Your task to perform on an android device: uninstall "DoorDash - Dasher" Image 0: 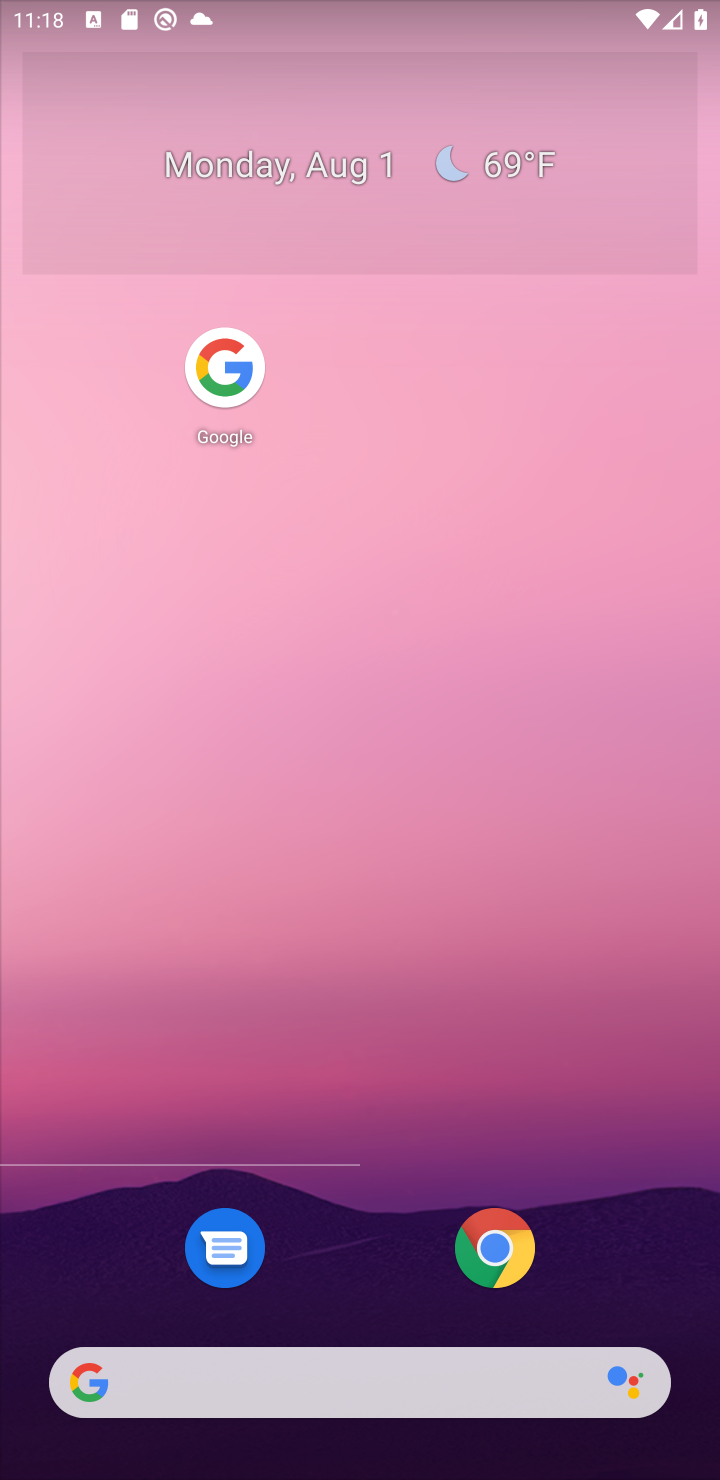
Step 0: drag from (623, 1250) to (609, 379)
Your task to perform on an android device: uninstall "DoorDash - Dasher" Image 1: 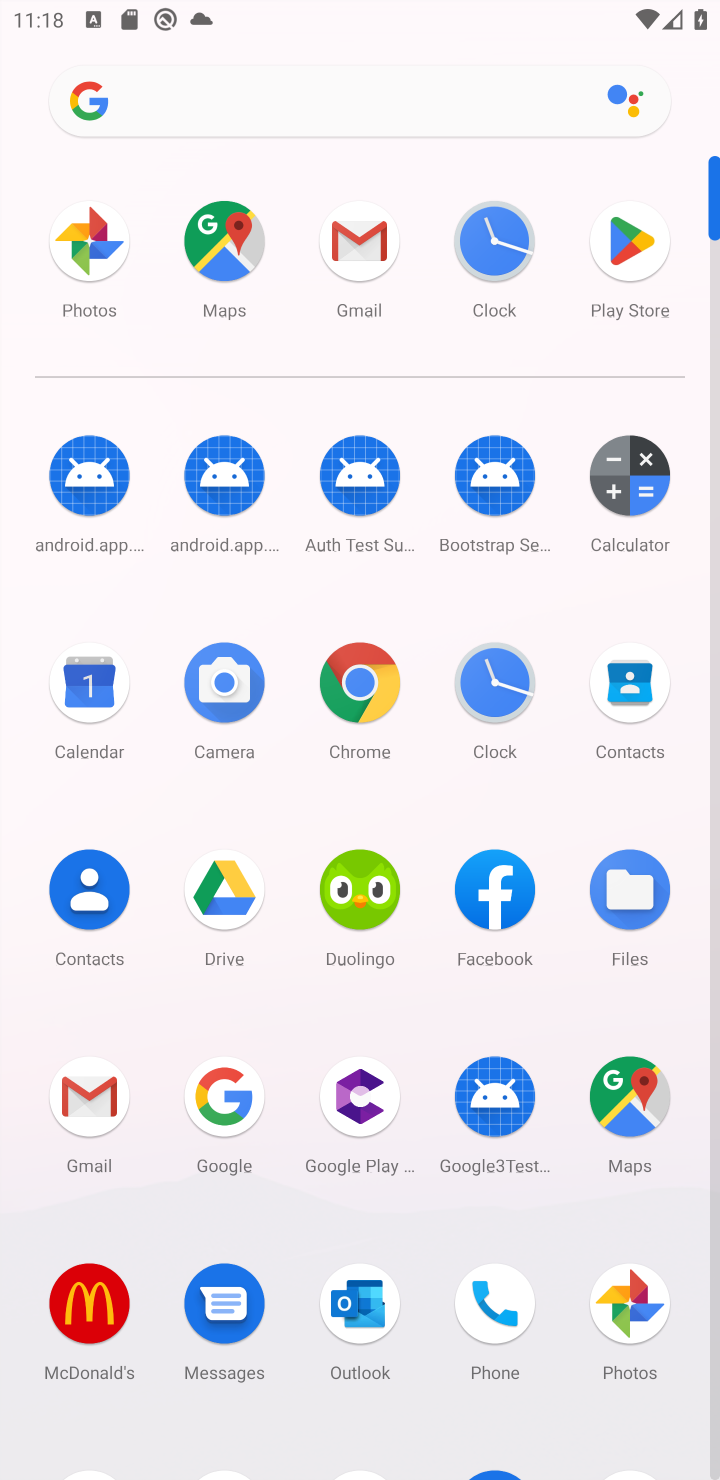
Step 1: drag from (293, 1195) to (366, 410)
Your task to perform on an android device: uninstall "DoorDash - Dasher" Image 2: 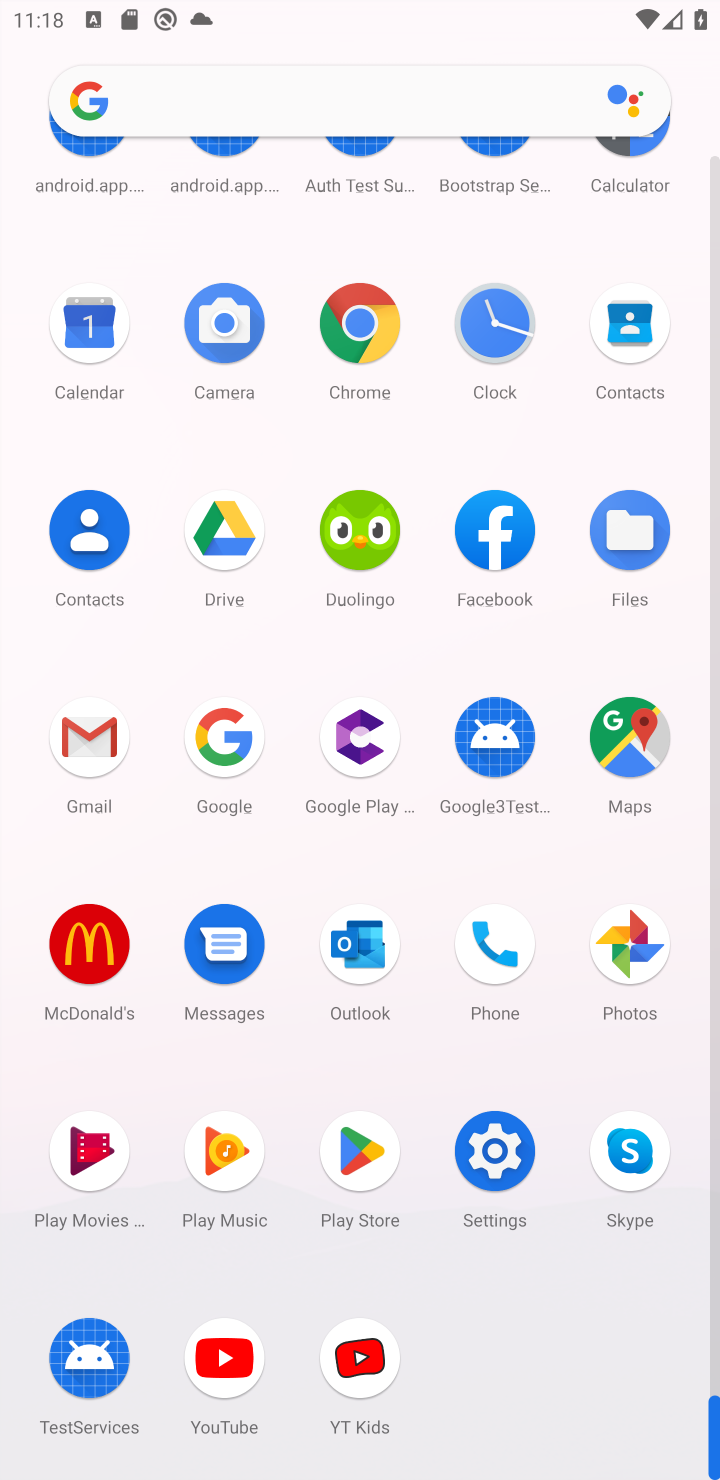
Step 2: click (373, 1143)
Your task to perform on an android device: uninstall "DoorDash - Dasher" Image 3: 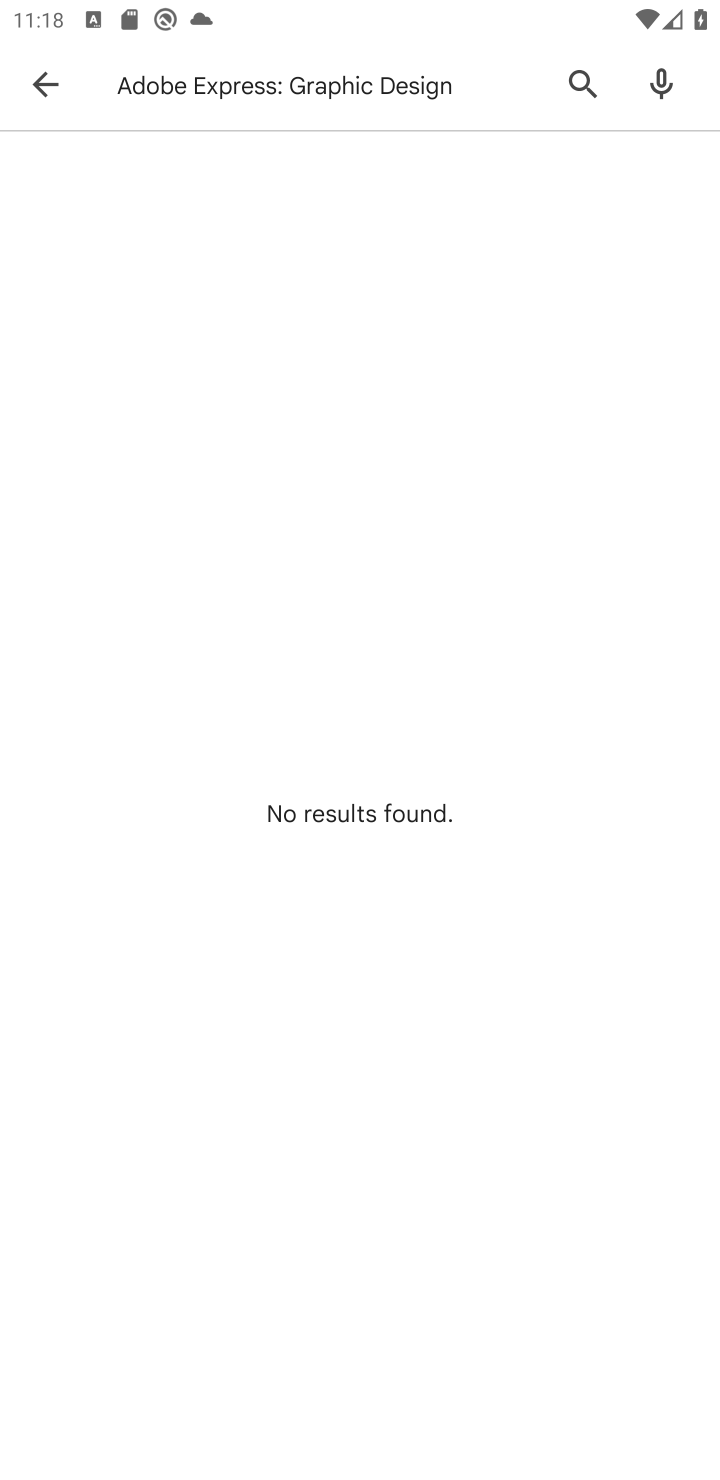
Step 3: click (311, 77)
Your task to perform on an android device: uninstall "DoorDash - Dasher" Image 4: 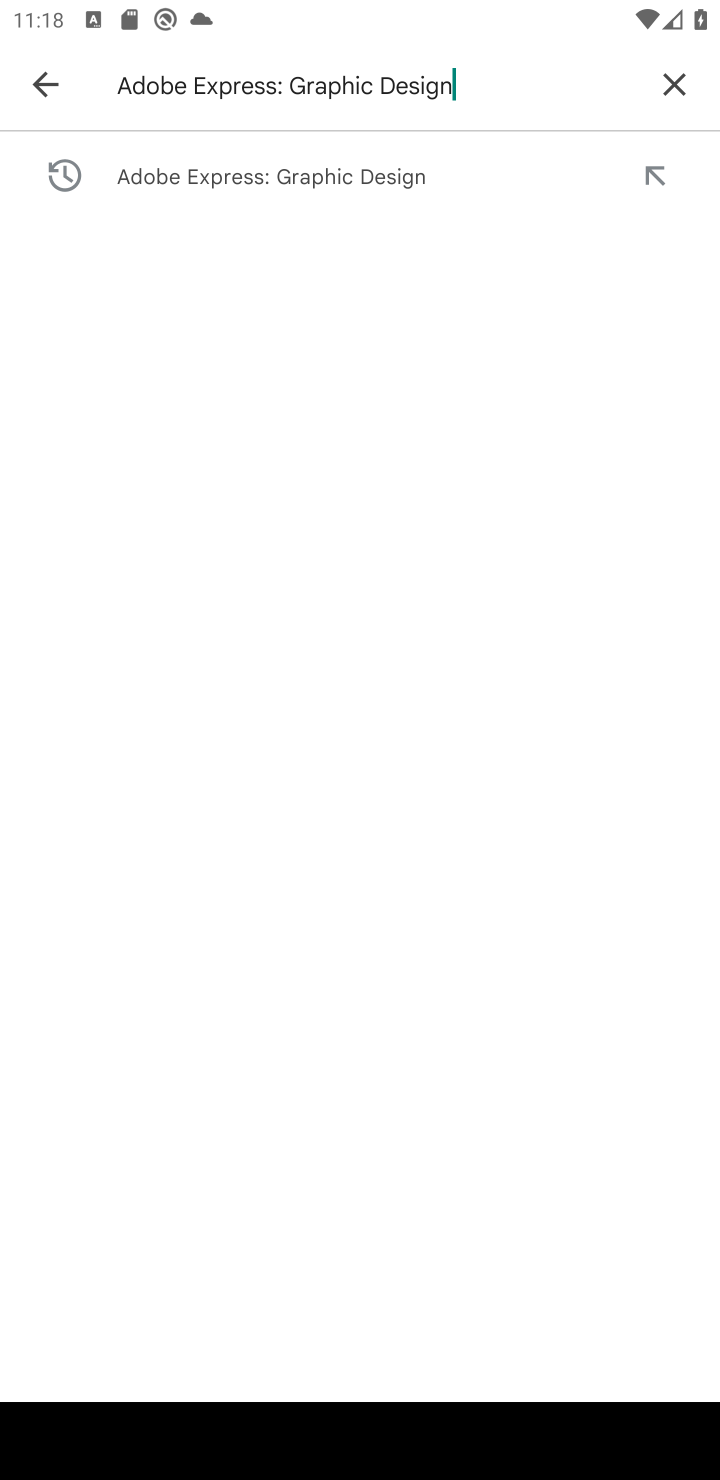
Step 4: click (676, 84)
Your task to perform on an android device: uninstall "DoorDash - Dasher" Image 5: 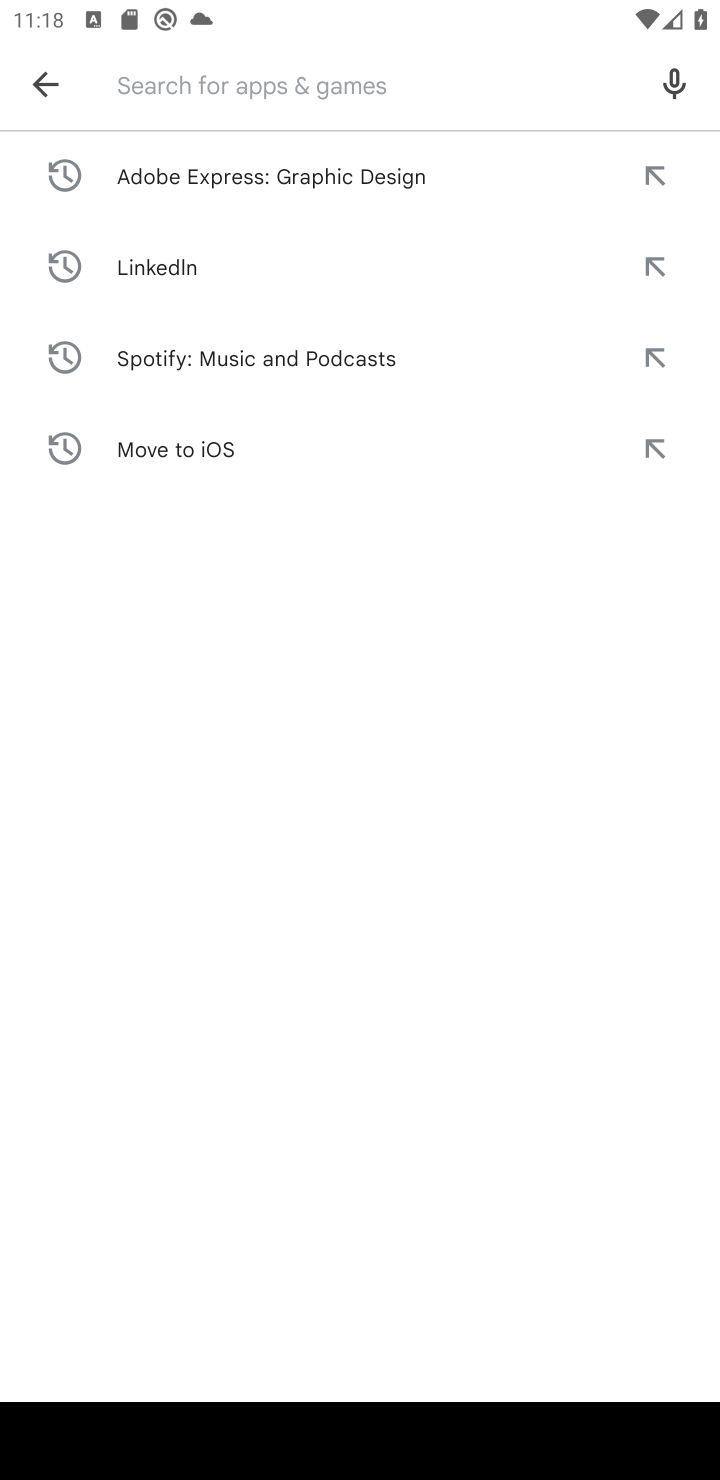
Step 5: type "DoorDash - Dasher"
Your task to perform on an android device: uninstall "DoorDash - Dasher" Image 6: 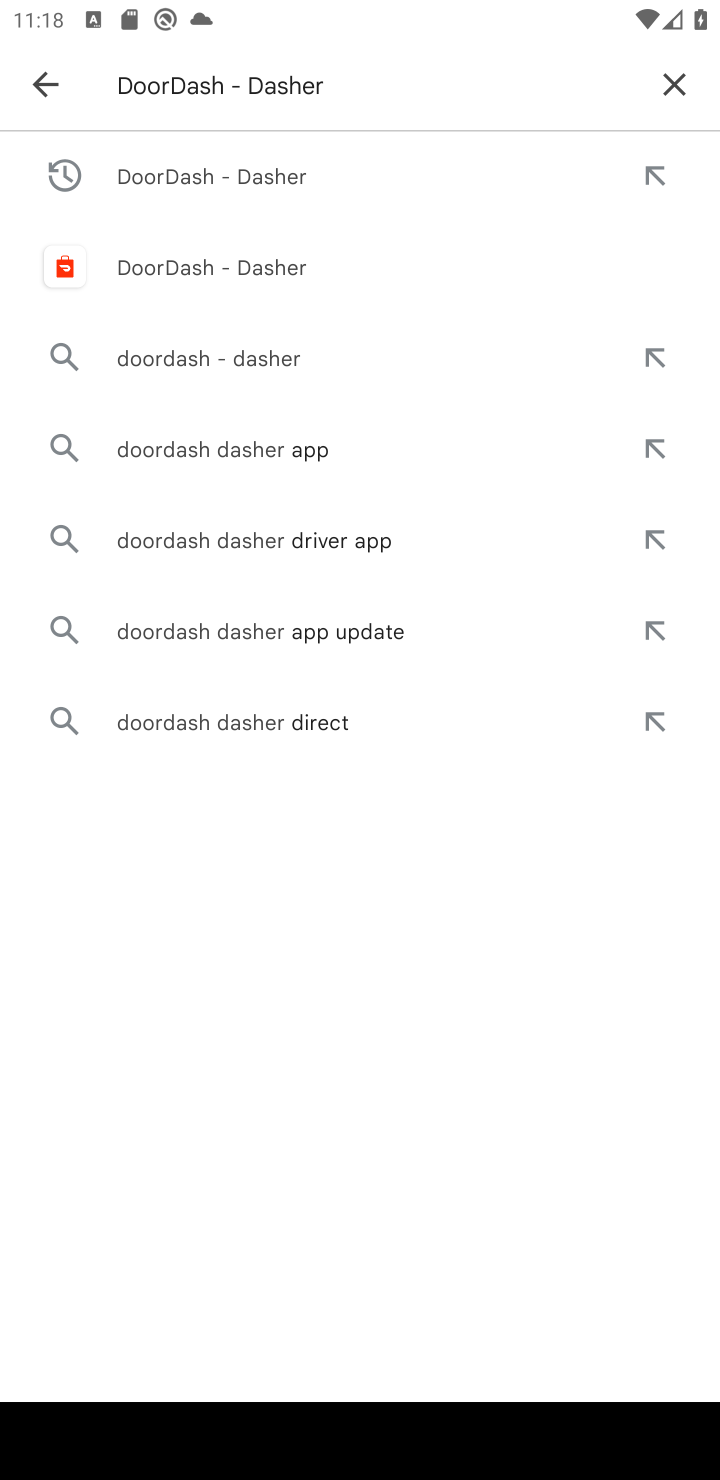
Step 6: press enter
Your task to perform on an android device: uninstall "DoorDash - Dasher" Image 7: 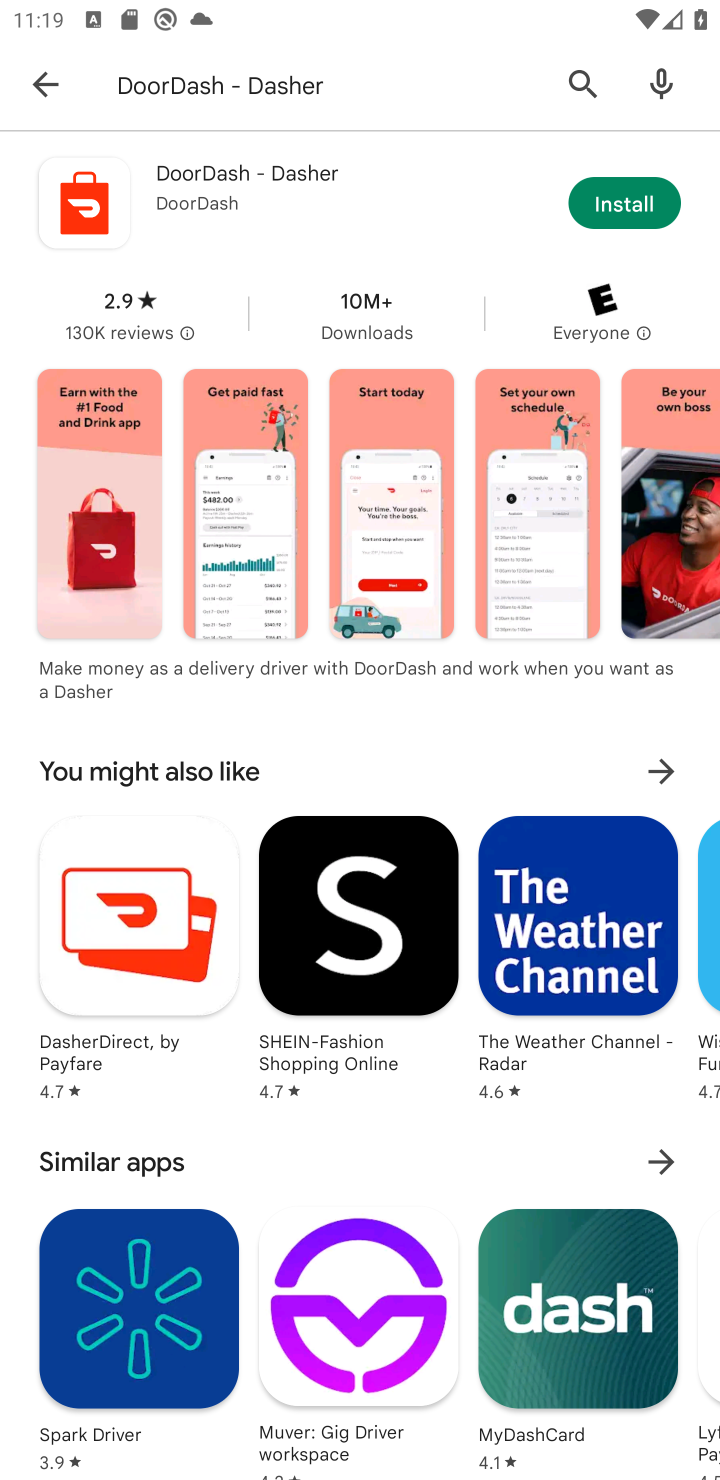
Step 7: click (440, 177)
Your task to perform on an android device: uninstall "DoorDash - Dasher" Image 8: 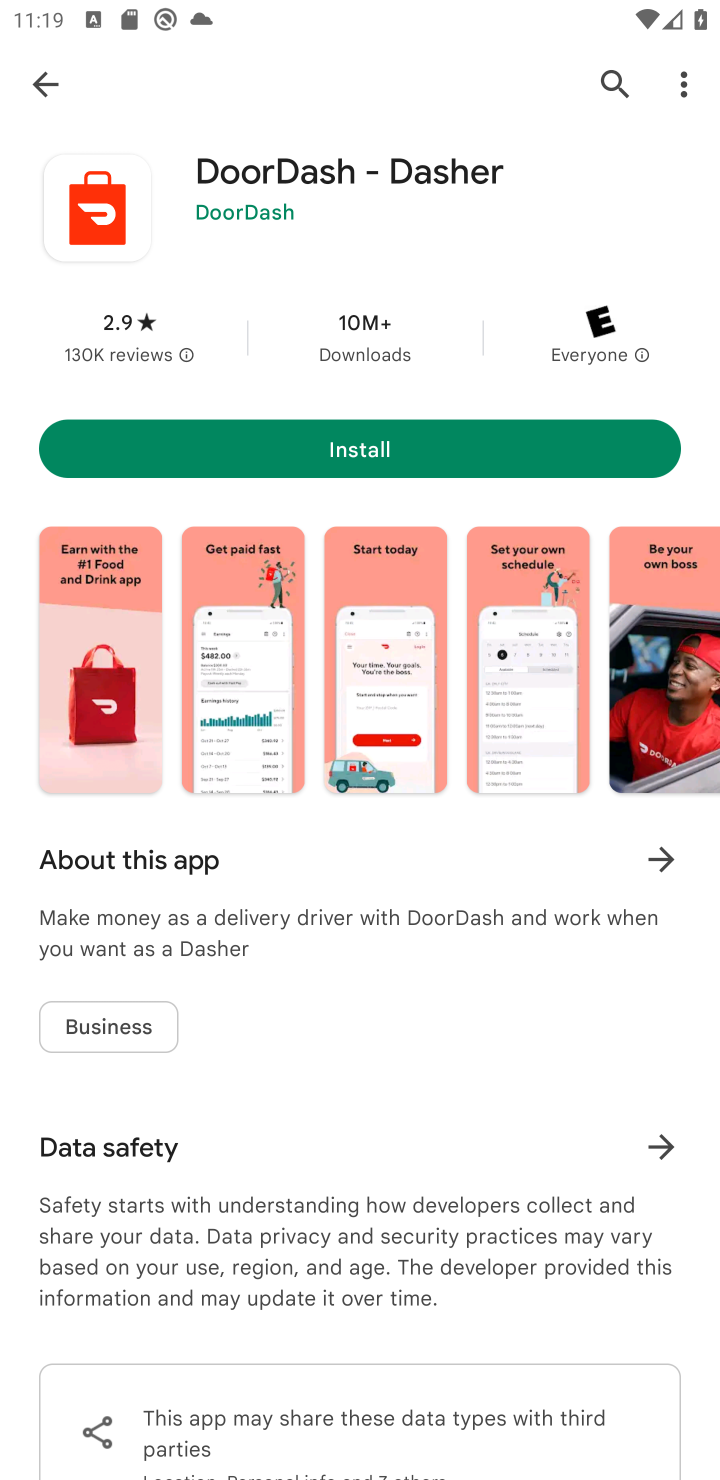
Step 8: task complete